Your task to perform on an android device: Go to Android settings Image 0: 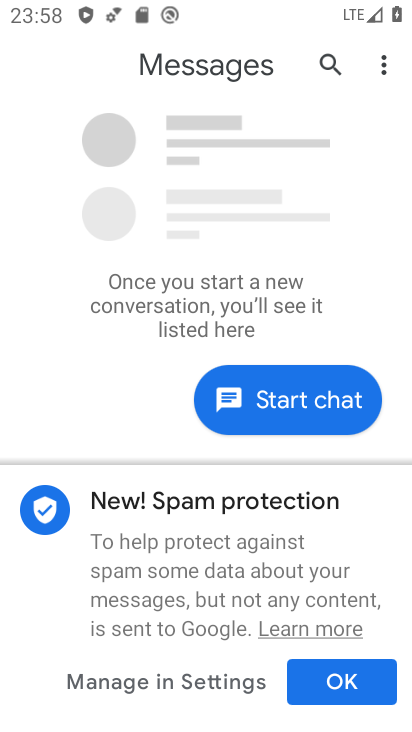
Step 0: press home button
Your task to perform on an android device: Go to Android settings Image 1: 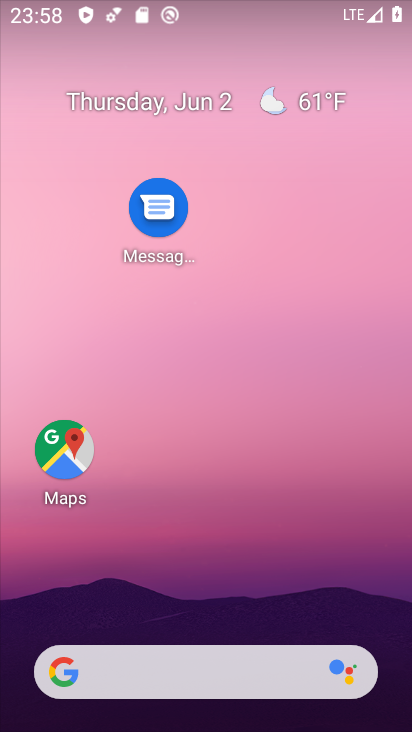
Step 1: drag from (189, 619) to (254, 0)
Your task to perform on an android device: Go to Android settings Image 2: 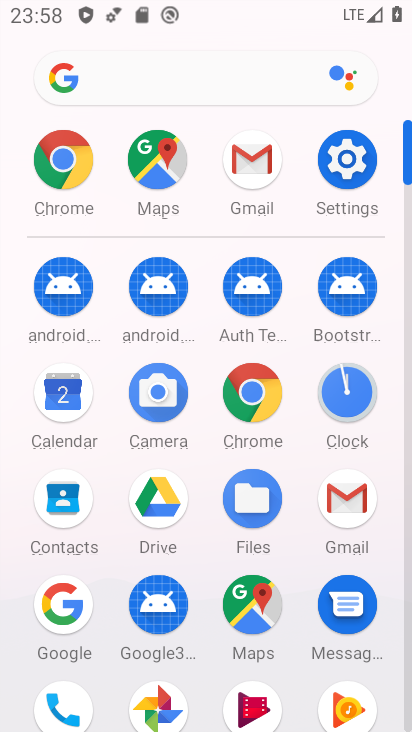
Step 2: click (342, 137)
Your task to perform on an android device: Go to Android settings Image 3: 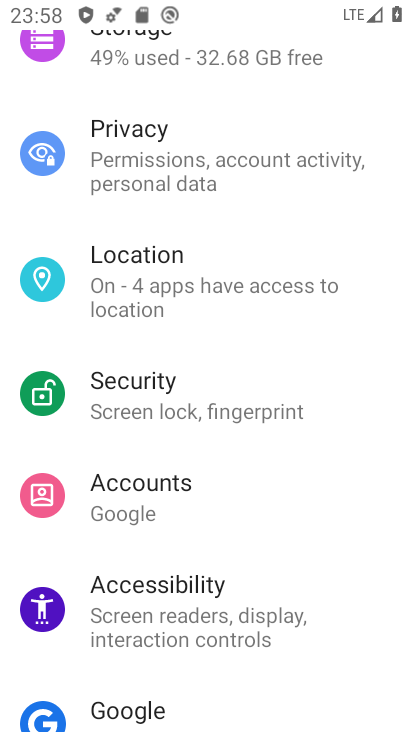
Step 3: task complete